Your task to perform on an android device: turn off airplane mode Image 0: 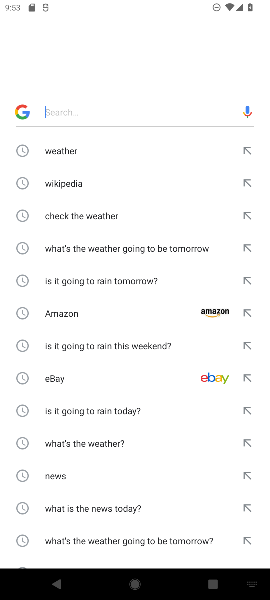
Step 0: press home button
Your task to perform on an android device: turn off airplane mode Image 1: 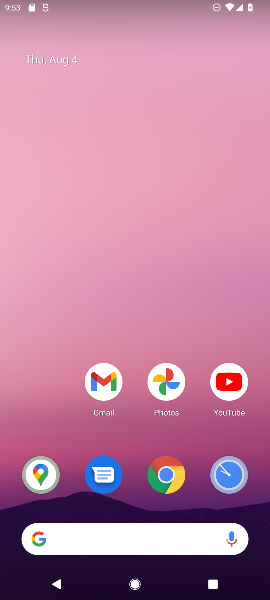
Step 1: drag from (94, 526) to (132, 130)
Your task to perform on an android device: turn off airplane mode Image 2: 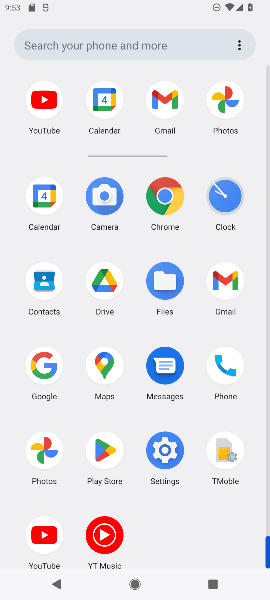
Step 2: click (164, 445)
Your task to perform on an android device: turn off airplane mode Image 3: 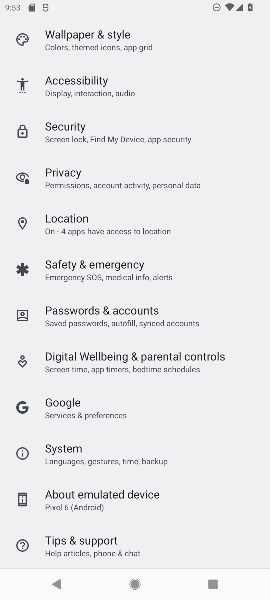
Step 3: drag from (127, 476) to (128, 306)
Your task to perform on an android device: turn off airplane mode Image 4: 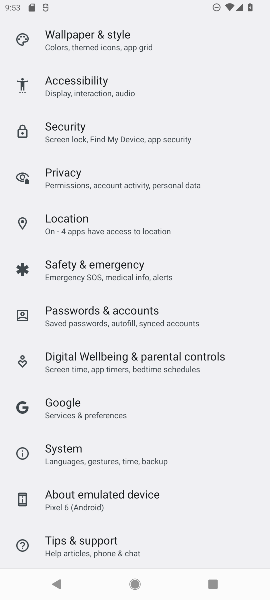
Step 4: drag from (105, 148) to (181, 441)
Your task to perform on an android device: turn off airplane mode Image 5: 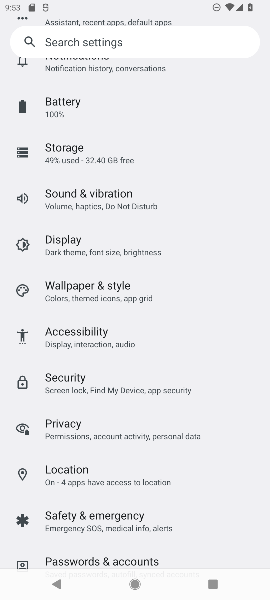
Step 5: drag from (187, 97) to (164, 543)
Your task to perform on an android device: turn off airplane mode Image 6: 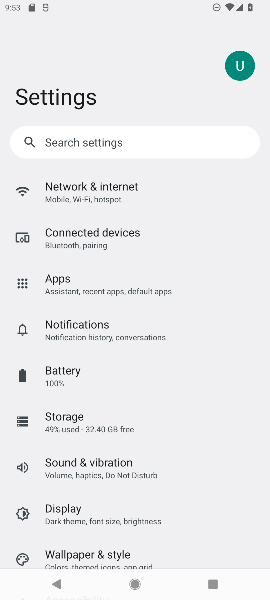
Step 6: click (100, 186)
Your task to perform on an android device: turn off airplane mode Image 7: 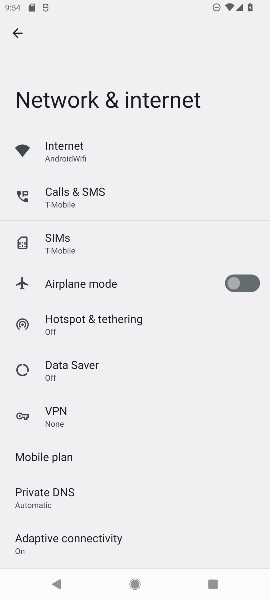
Step 7: task complete